Your task to perform on an android device: check the backup settings in the google photos Image 0: 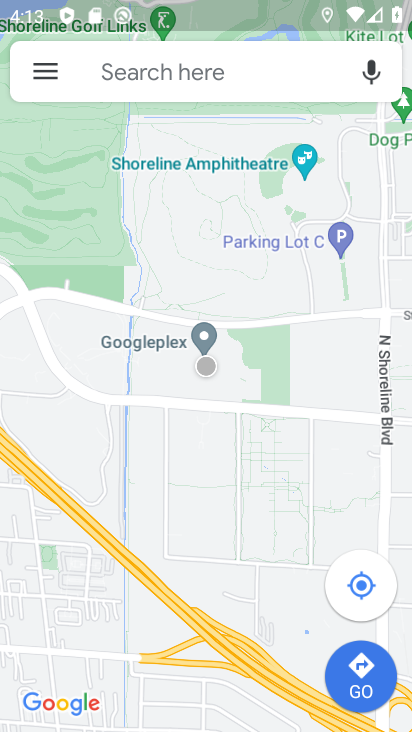
Step 0: press home button
Your task to perform on an android device: check the backup settings in the google photos Image 1: 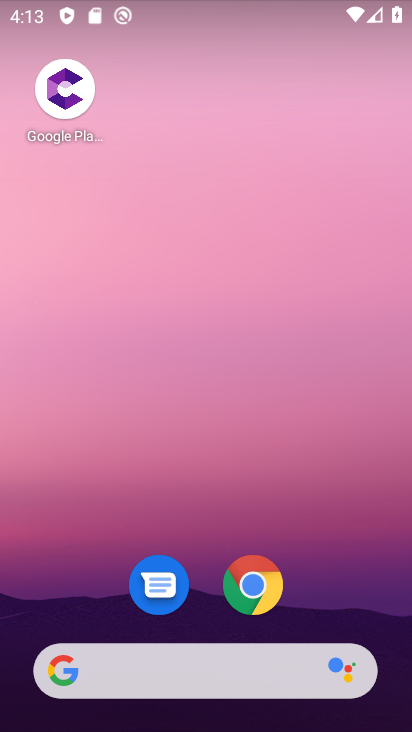
Step 1: drag from (195, 535) to (211, 38)
Your task to perform on an android device: check the backup settings in the google photos Image 2: 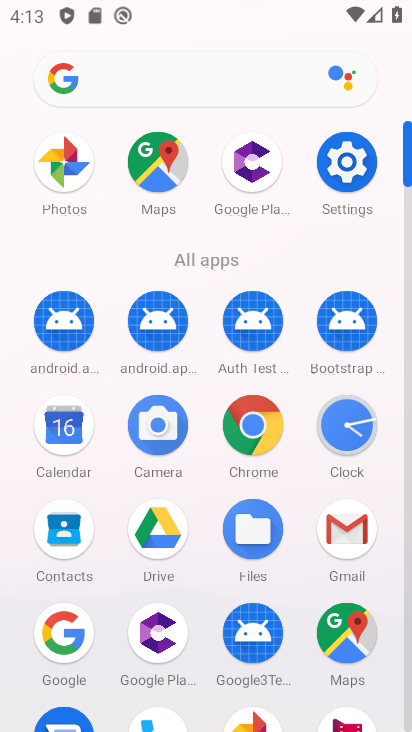
Step 2: click (60, 160)
Your task to perform on an android device: check the backup settings in the google photos Image 3: 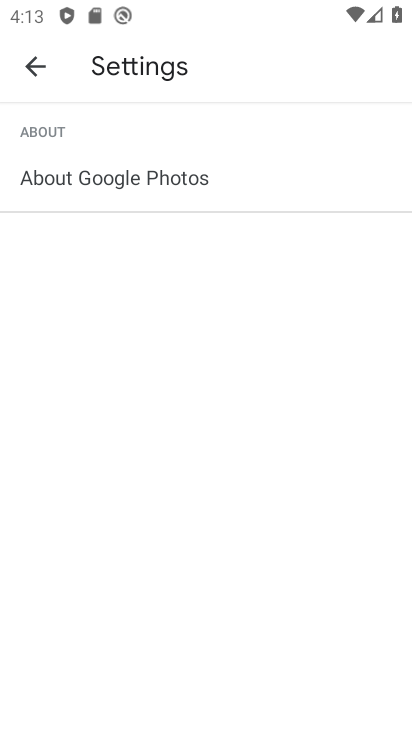
Step 3: click (40, 63)
Your task to perform on an android device: check the backup settings in the google photos Image 4: 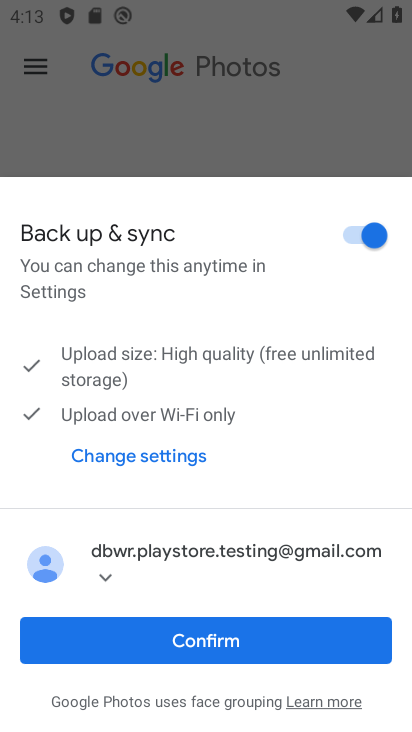
Step 4: click (40, 61)
Your task to perform on an android device: check the backup settings in the google photos Image 5: 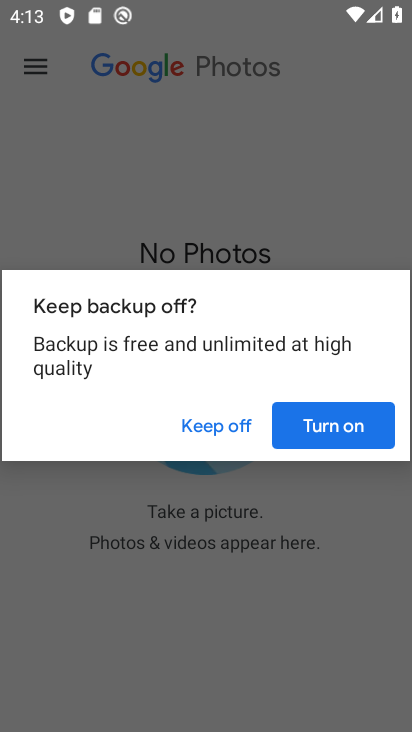
Step 5: click (315, 421)
Your task to perform on an android device: check the backup settings in the google photos Image 6: 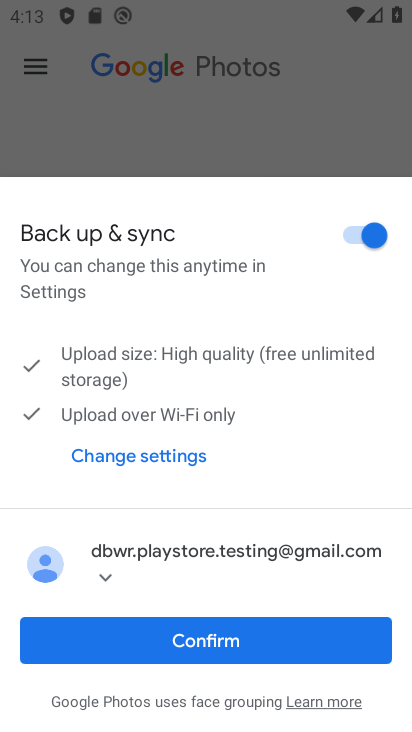
Step 6: click (309, 642)
Your task to perform on an android device: check the backup settings in the google photos Image 7: 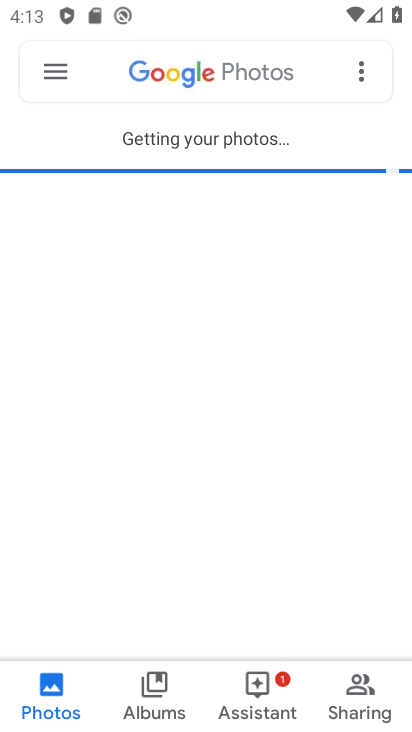
Step 7: click (45, 65)
Your task to perform on an android device: check the backup settings in the google photos Image 8: 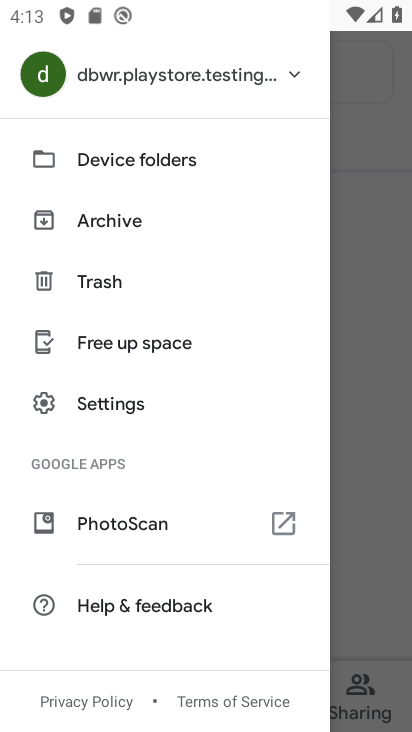
Step 8: click (132, 394)
Your task to perform on an android device: check the backup settings in the google photos Image 9: 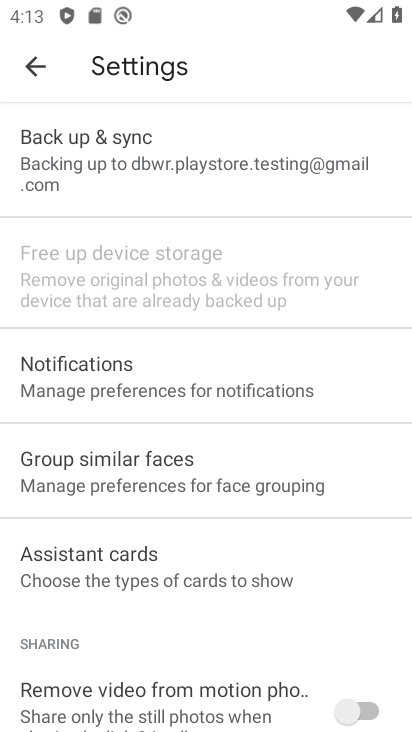
Step 9: click (182, 143)
Your task to perform on an android device: check the backup settings in the google photos Image 10: 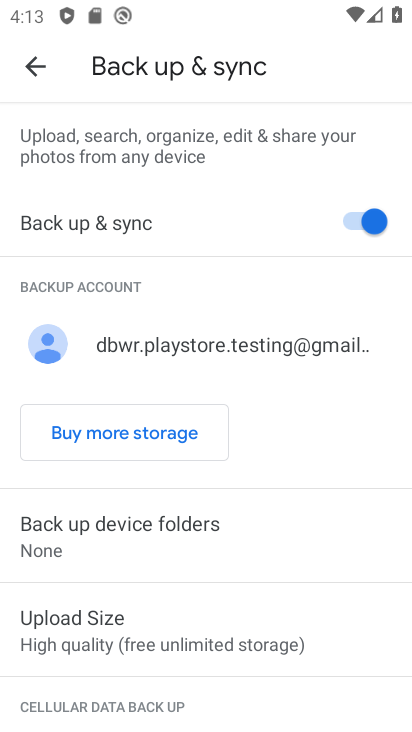
Step 10: task complete